Your task to perform on an android device: Clear the cart on target.com. Search for "usb-c to usb-a" on target.com, select the first entry, add it to the cart, then select checkout. Image 0: 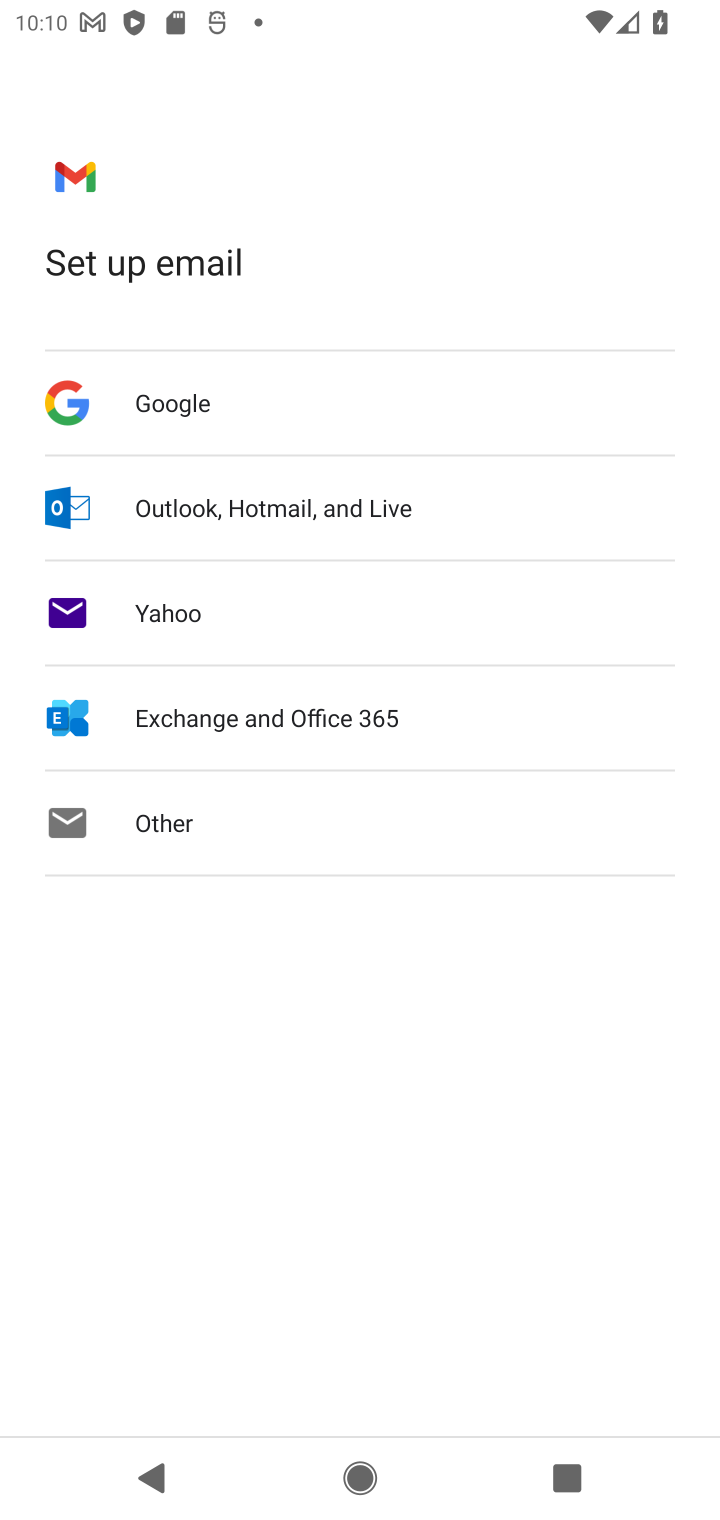
Step 0: press home button
Your task to perform on an android device: Clear the cart on target.com. Search for "usb-c to usb-a" on target.com, select the first entry, add it to the cart, then select checkout. Image 1: 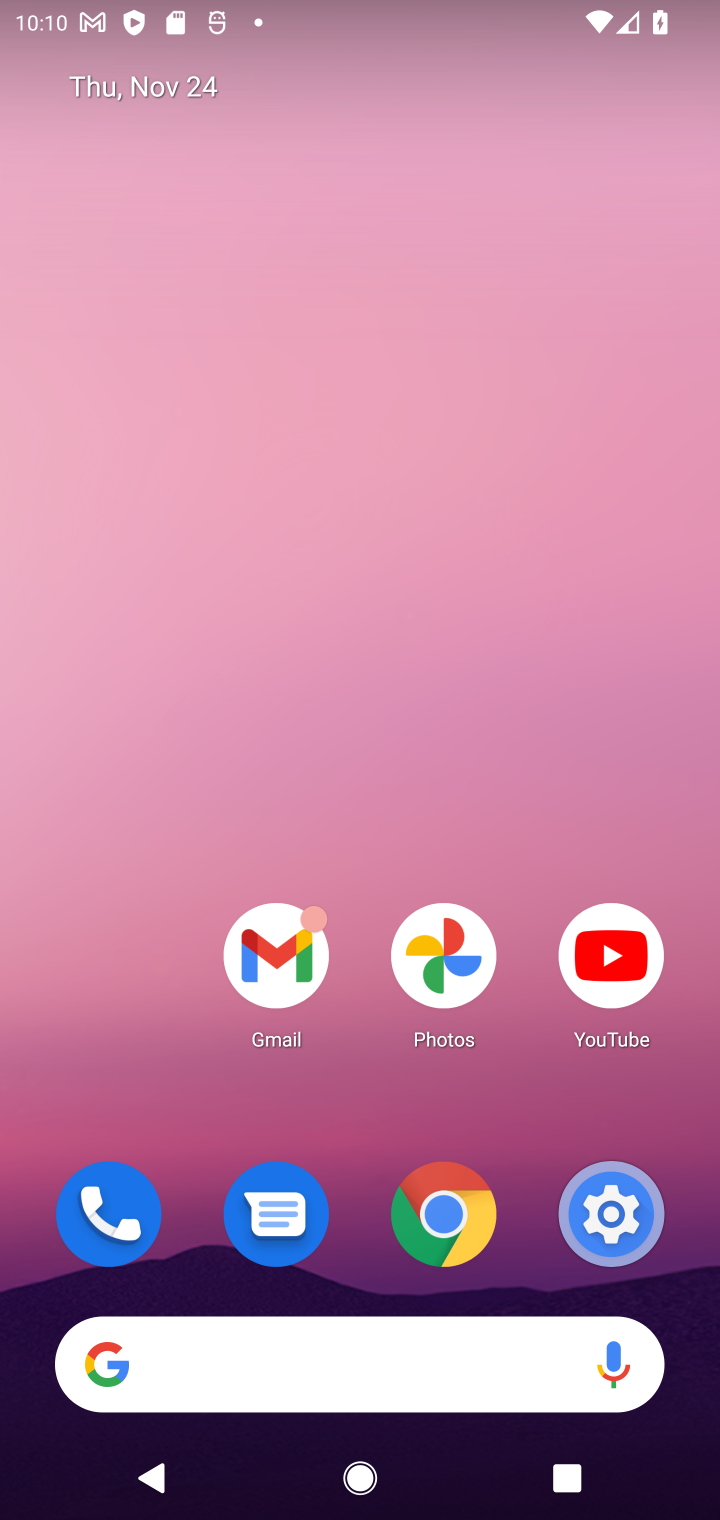
Step 1: click (401, 1417)
Your task to perform on an android device: Clear the cart on target.com. Search for "usb-c to usb-a" on target.com, select the first entry, add it to the cart, then select checkout. Image 2: 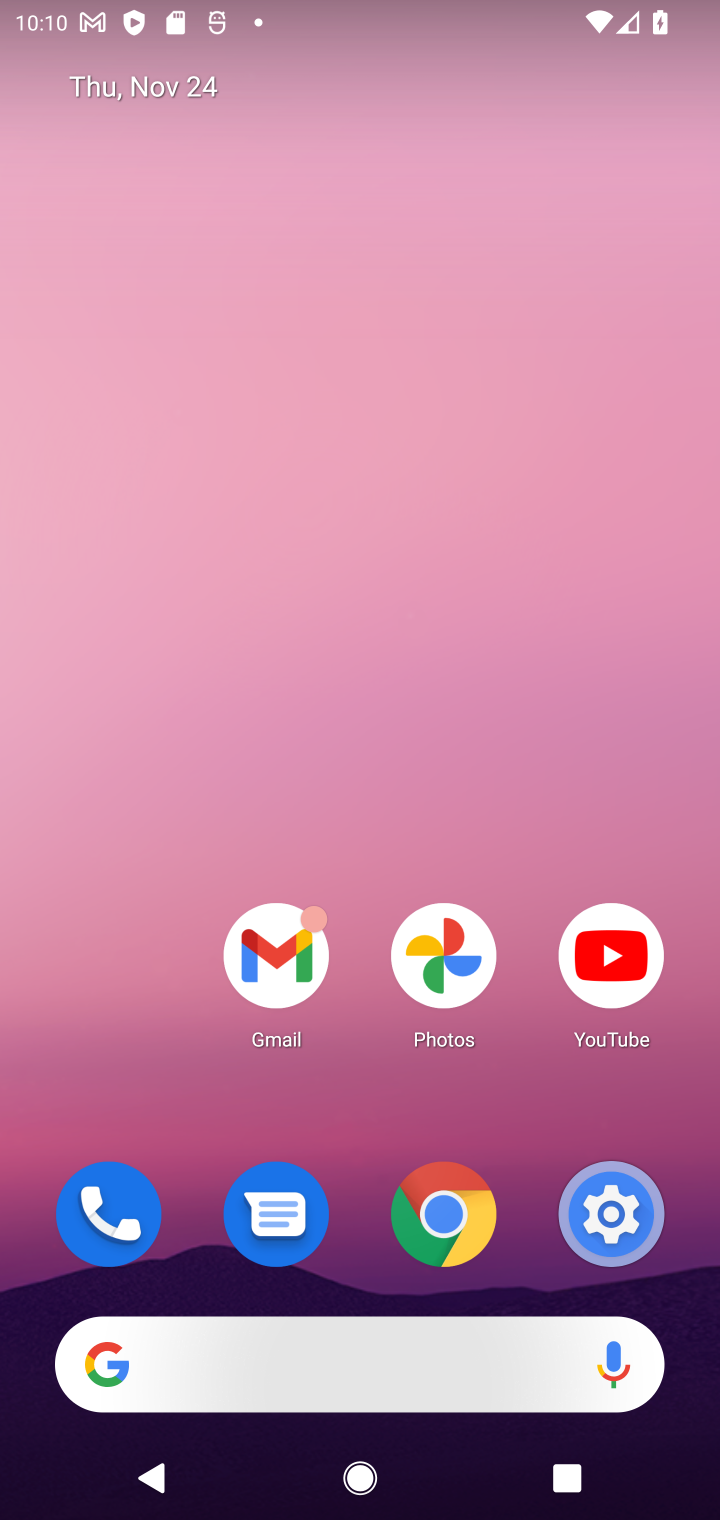
Step 2: click (396, 1402)
Your task to perform on an android device: Clear the cart on target.com. Search for "usb-c to usb-a" on target.com, select the first entry, add it to the cart, then select checkout. Image 3: 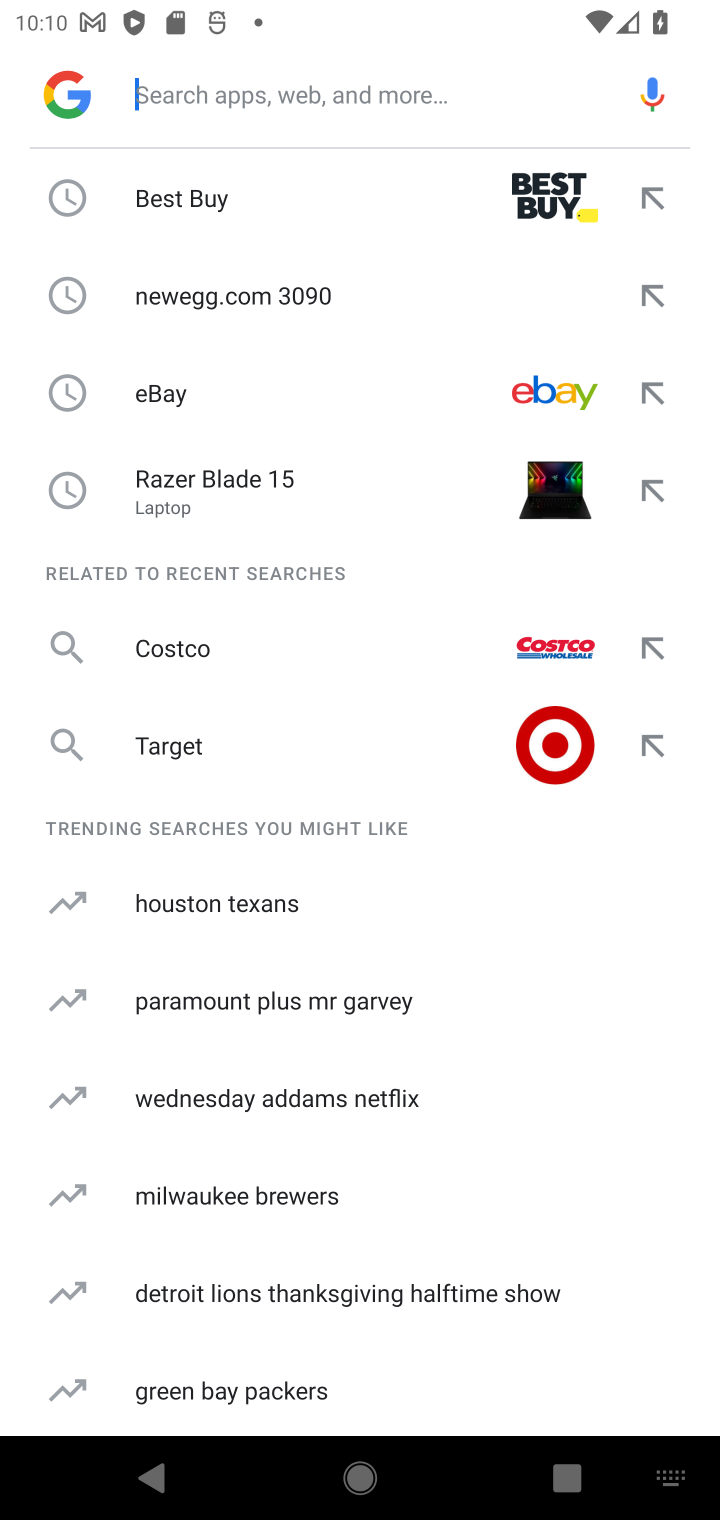
Step 3: click (188, 768)
Your task to perform on an android device: Clear the cart on target.com. Search for "usb-c to usb-a" on target.com, select the first entry, add it to the cart, then select checkout. Image 4: 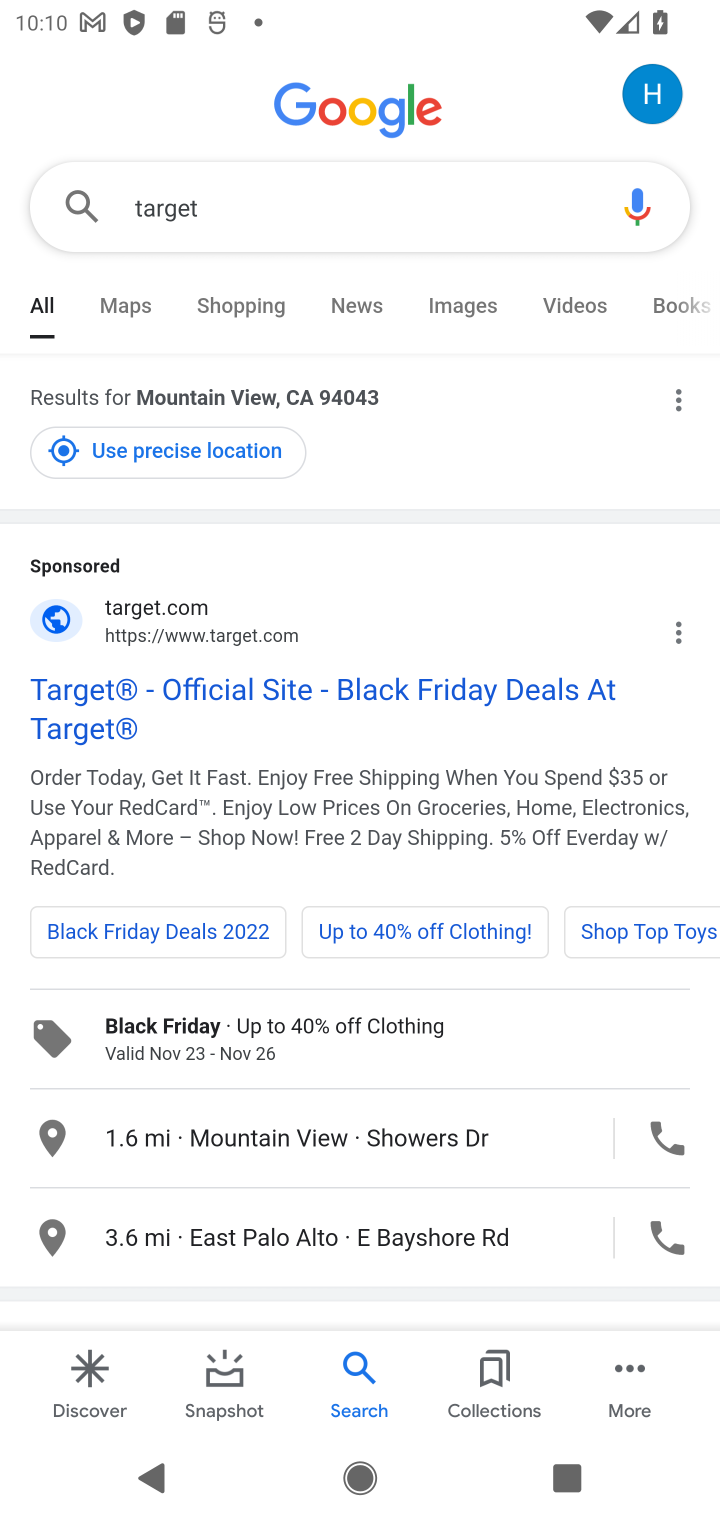
Step 4: click (148, 729)
Your task to perform on an android device: Clear the cart on target.com. Search for "usb-c to usb-a" on target.com, select the first entry, add it to the cart, then select checkout. Image 5: 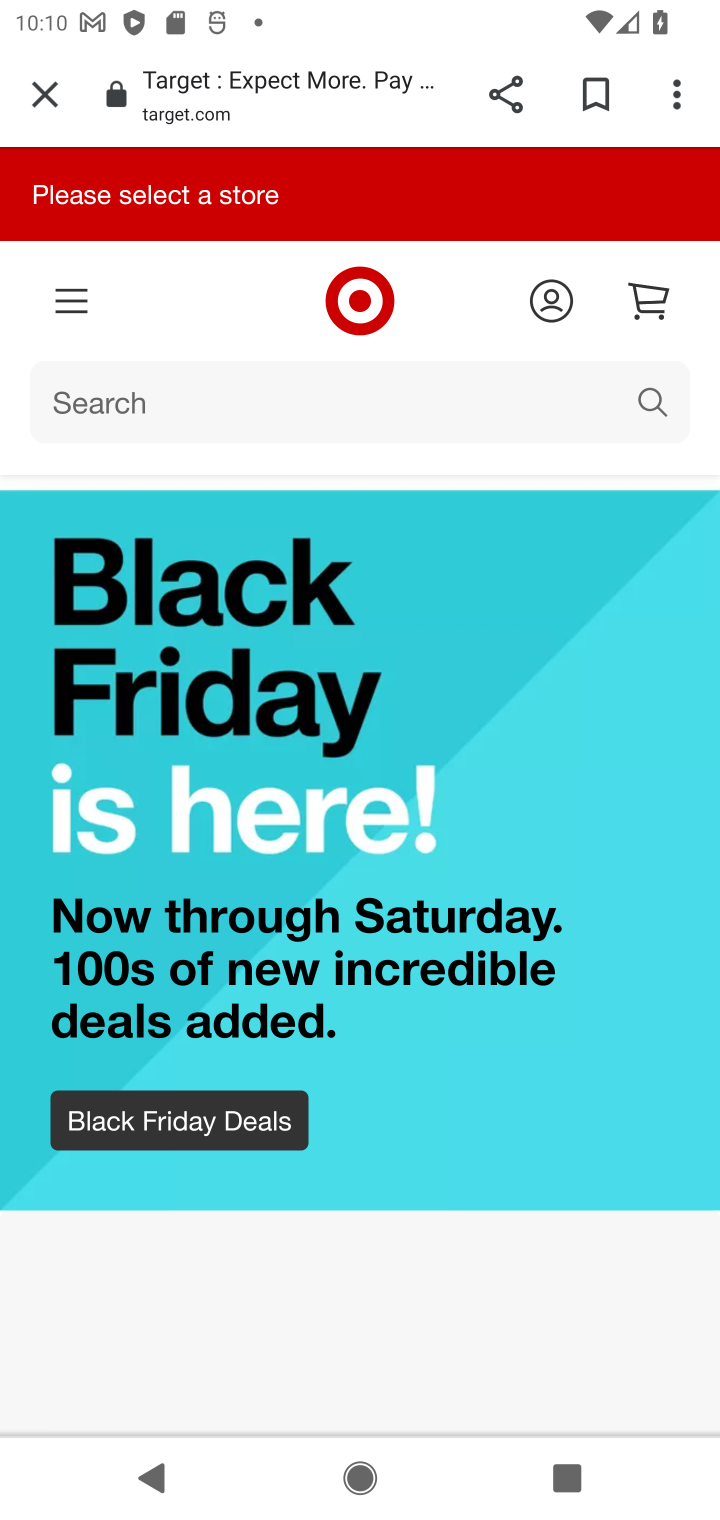
Step 5: click (420, 399)
Your task to perform on an android device: Clear the cart on target.com. Search for "usb-c to usb-a" on target.com, select the first entry, add it to the cart, then select checkout. Image 6: 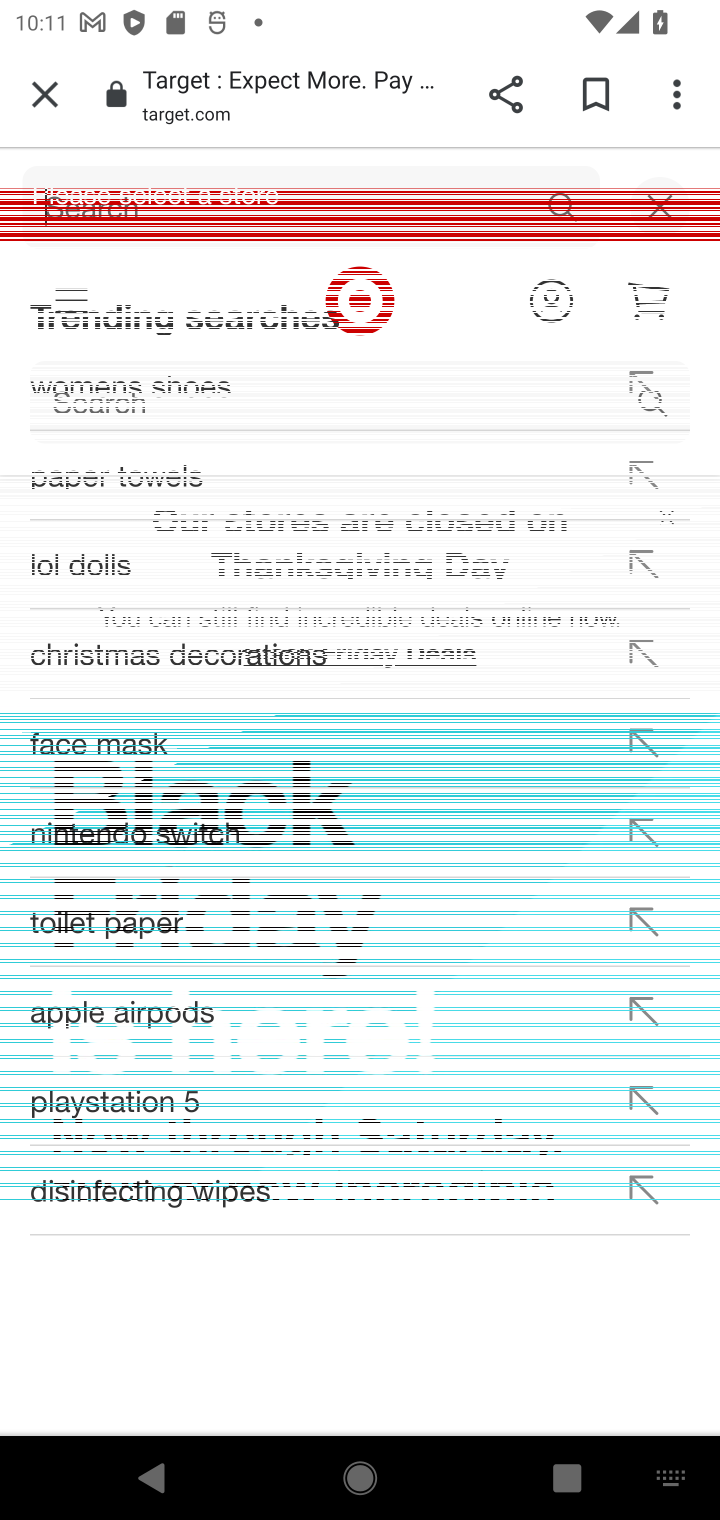
Step 6: type "usb-c to usb-a"
Your task to perform on an android device: Clear the cart on target.com. Search for "usb-c to usb-a" on target.com, select the first entry, add it to the cart, then select checkout. Image 7: 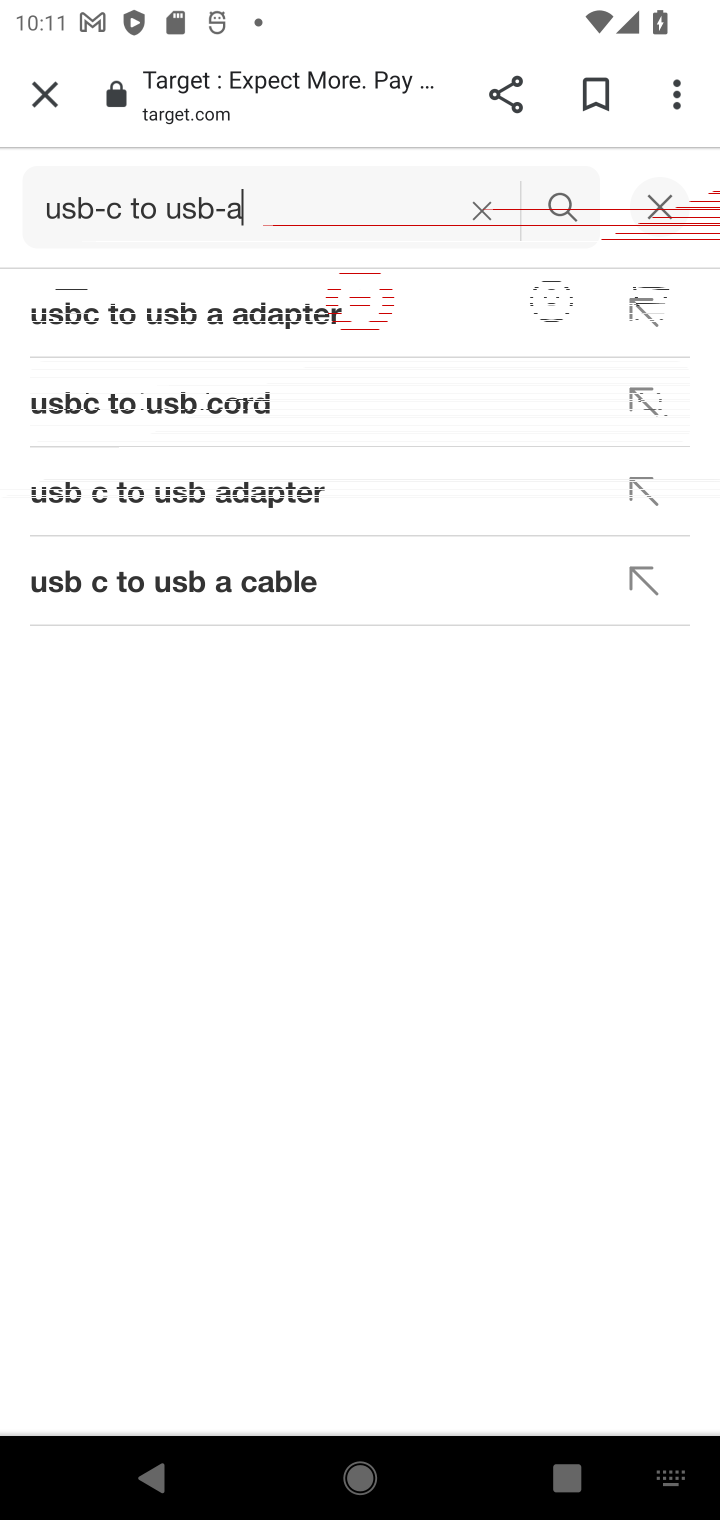
Step 7: click (270, 561)
Your task to perform on an android device: Clear the cart on target.com. Search for "usb-c to usb-a" on target.com, select the first entry, add it to the cart, then select checkout. Image 8: 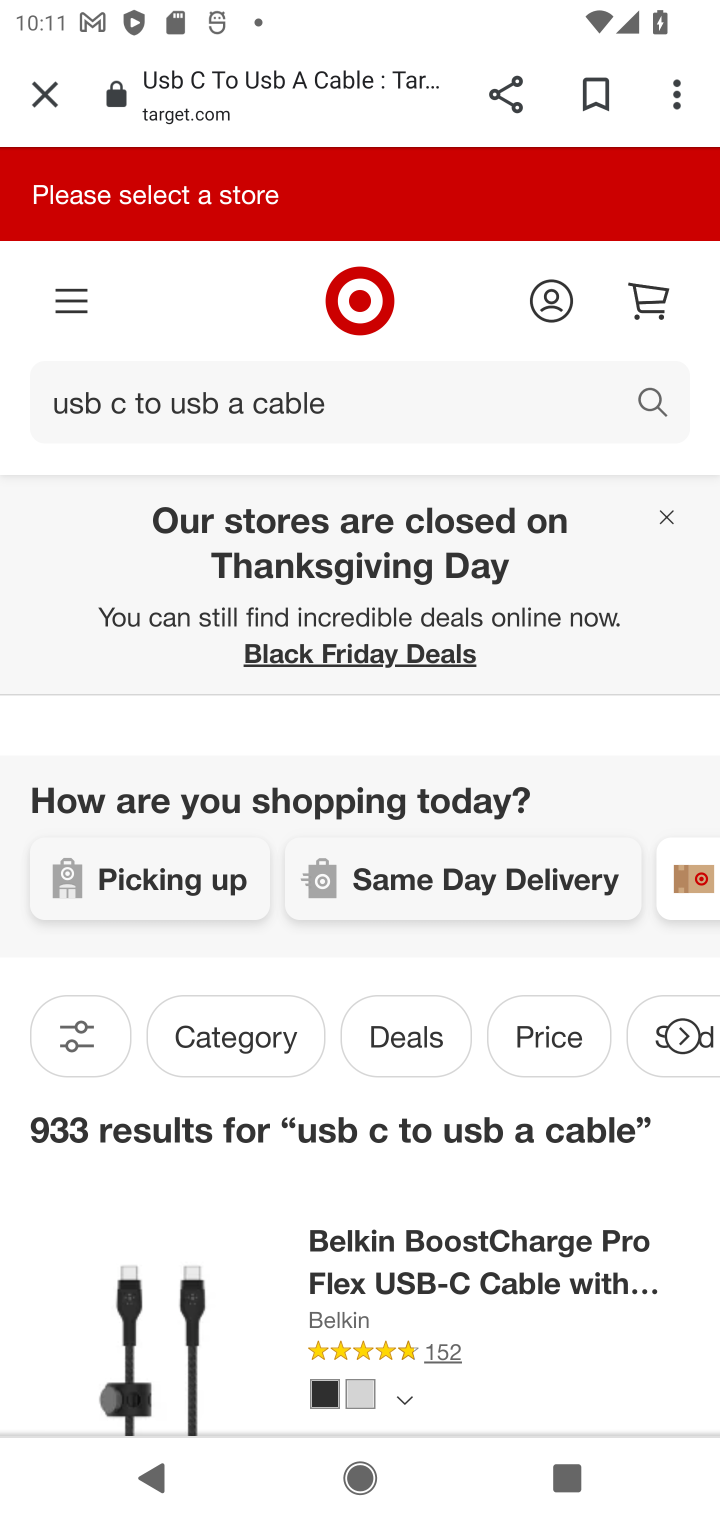
Step 8: click (652, 540)
Your task to perform on an android device: Clear the cart on target.com. Search for "usb-c to usb-a" on target.com, select the first entry, add it to the cart, then select checkout. Image 9: 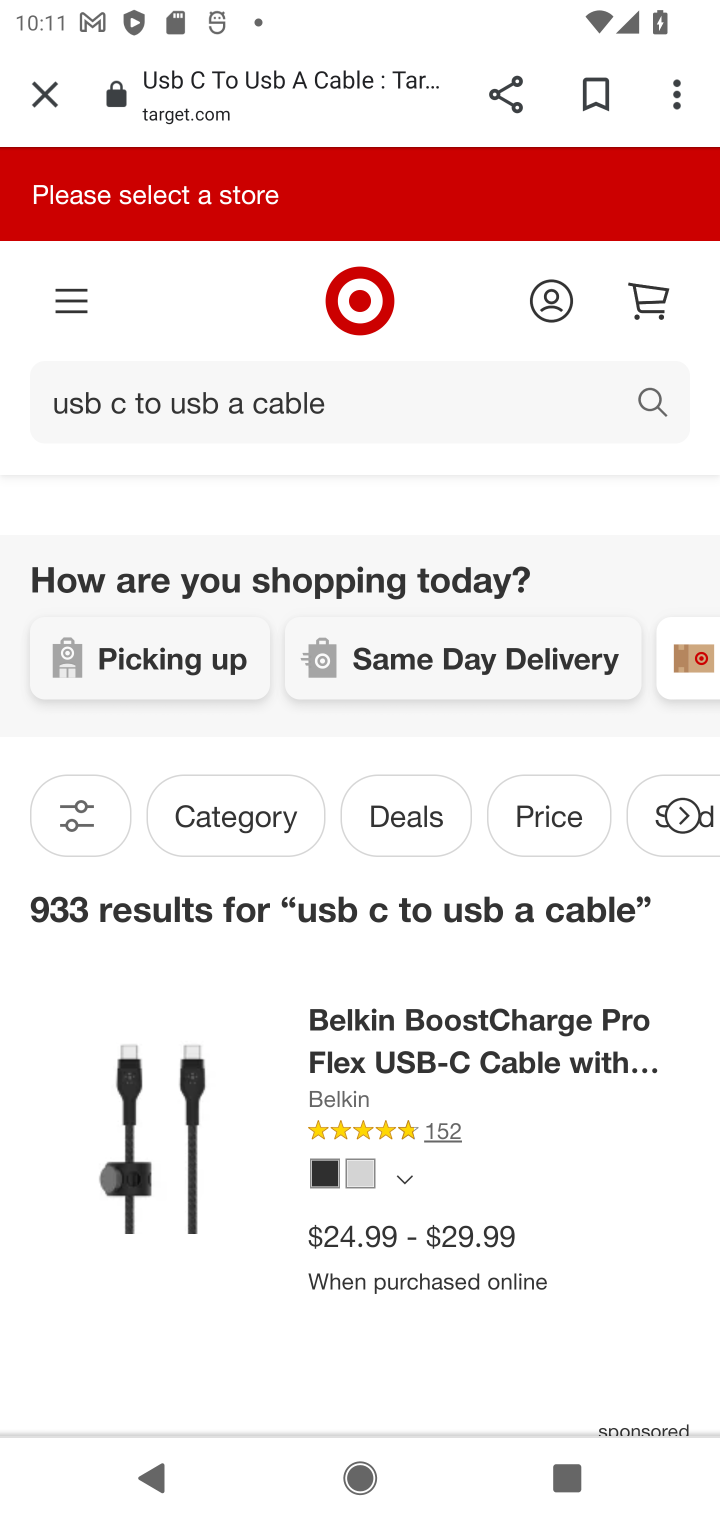
Step 9: drag from (530, 1159) to (532, 458)
Your task to perform on an android device: Clear the cart on target.com. Search for "usb-c to usb-a" on target.com, select the first entry, add it to the cart, then select checkout. Image 10: 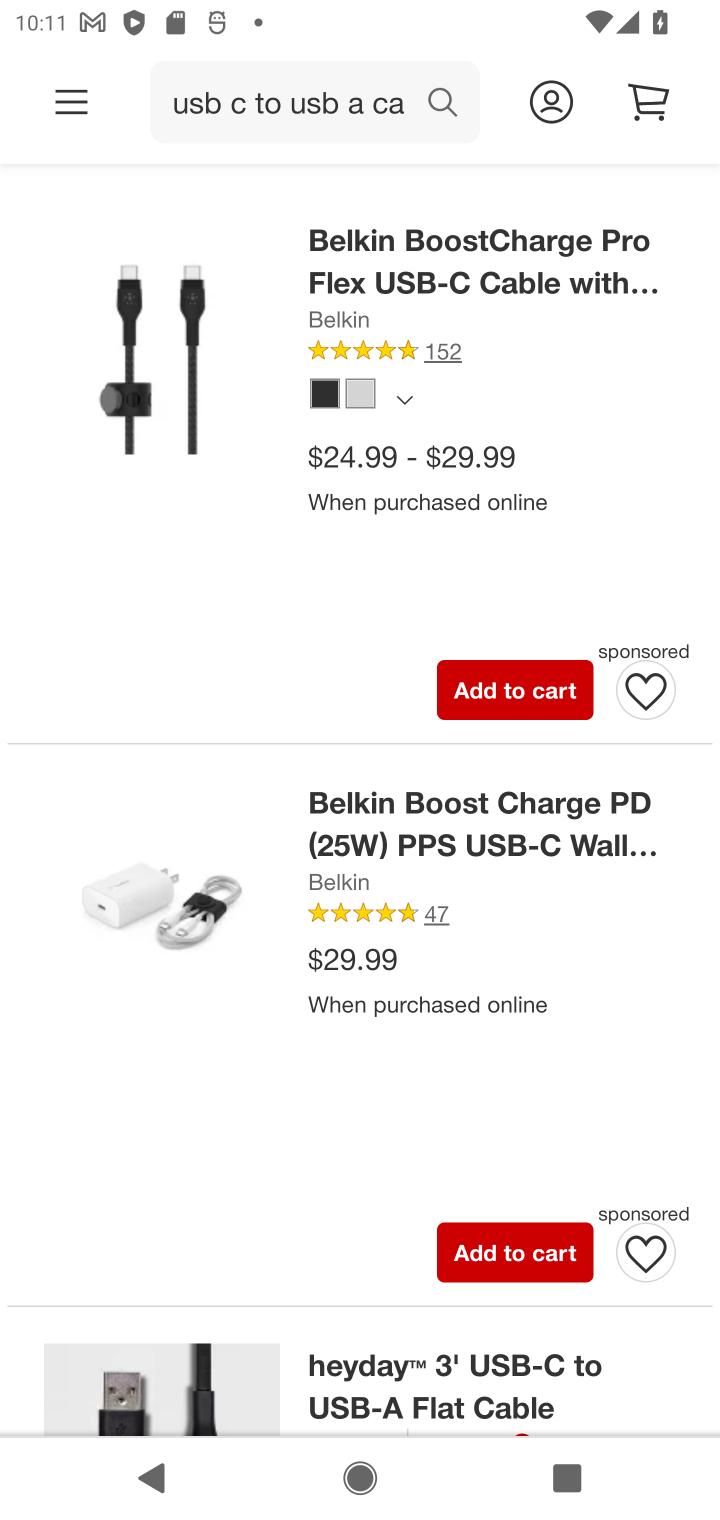
Step 10: click (528, 703)
Your task to perform on an android device: Clear the cart on target.com. Search for "usb-c to usb-a" on target.com, select the first entry, add it to the cart, then select checkout. Image 11: 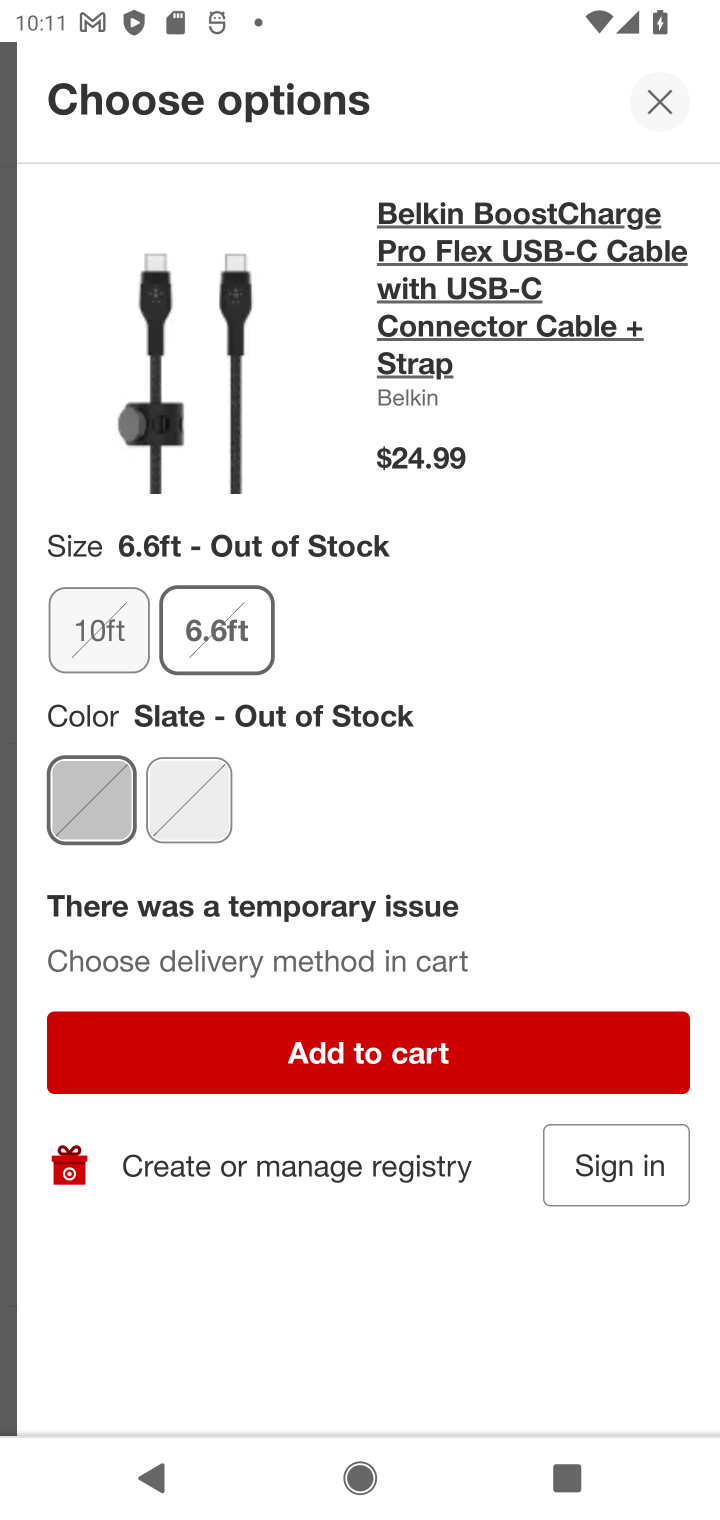
Step 11: click (416, 1089)
Your task to perform on an android device: Clear the cart on target.com. Search for "usb-c to usb-a" on target.com, select the first entry, add it to the cart, then select checkout. Image 12: 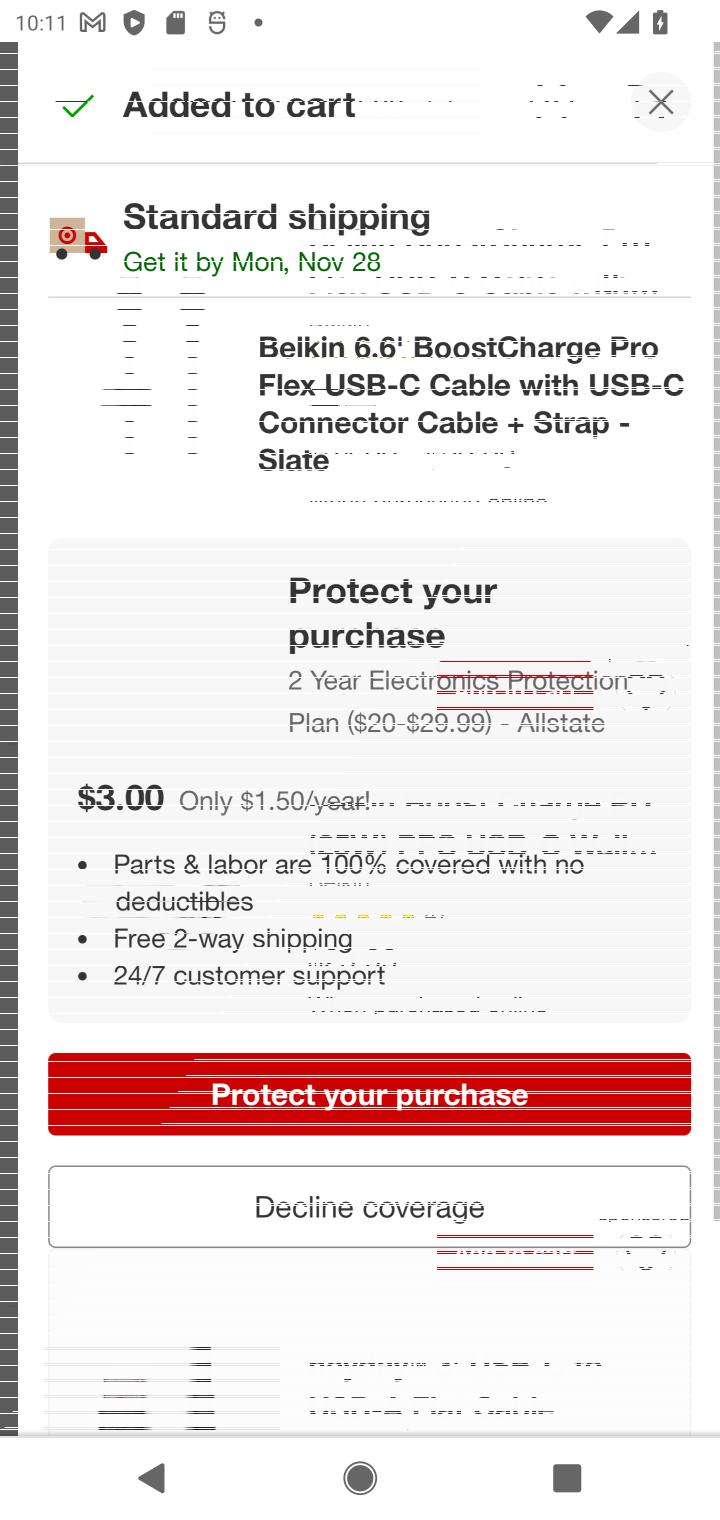
Step 12: task complete